Your task to perform on an android device: Go to Reddit.com Image 0: 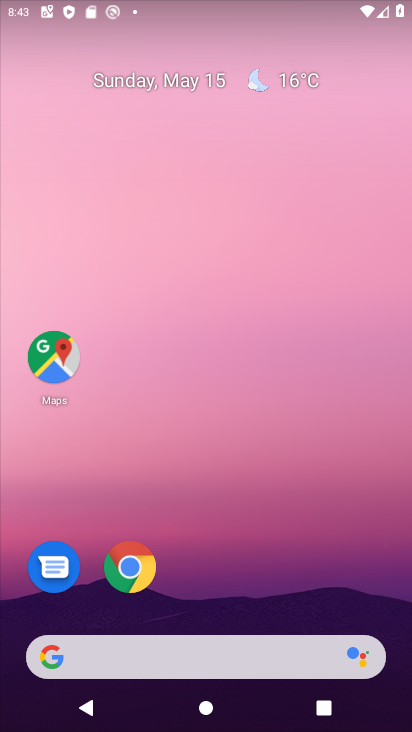
Step 0: click (125, 581)
Your task to perform on an android device: Go to Reddit.com Image 1: 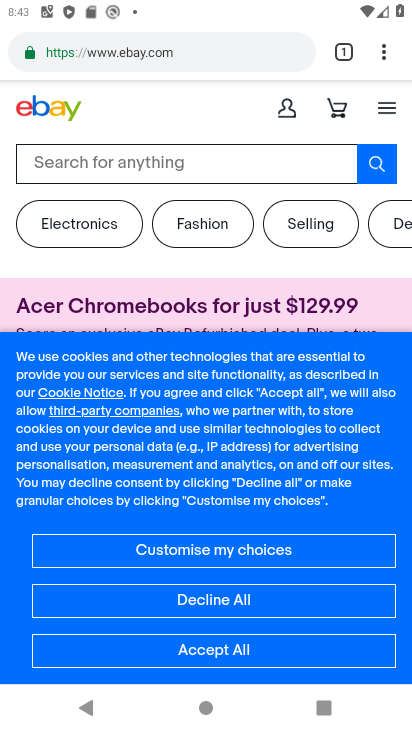
Step 1: click (125, 581)
Your task to perform on an android device: Go to Reddit.com Image 2: 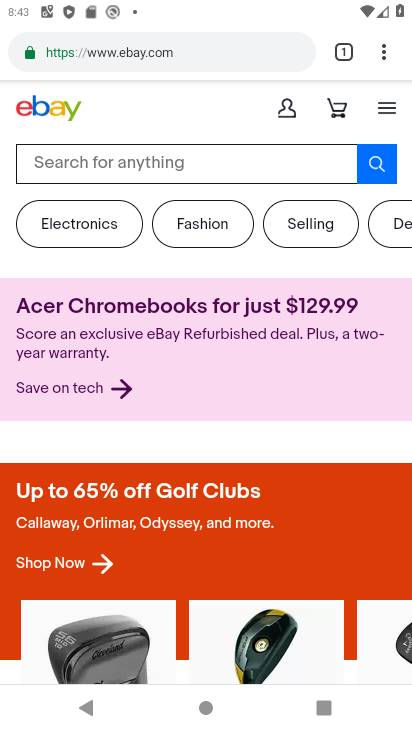
Step 2: click (177, 67)
Your task to perform on an android device: Go to Reddit.com Image 3: 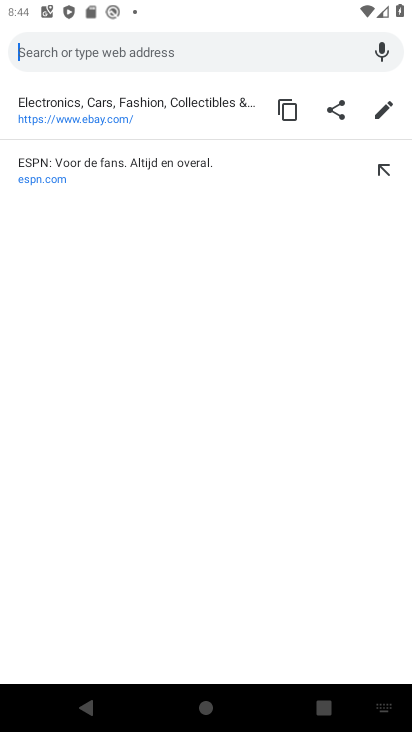
Step 3: type "reddit.com"
Your task to perform on an android device: Go to Reddit.com Image 4: 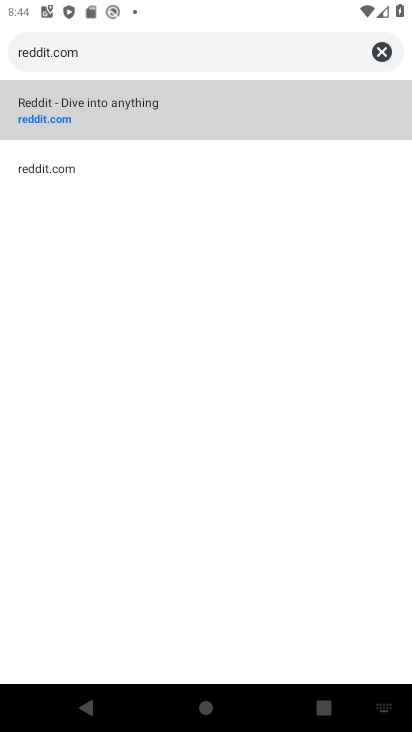
Step 4: click (143, 104)
Your task to perform on an android device: Go to Reddit.com Image 5: 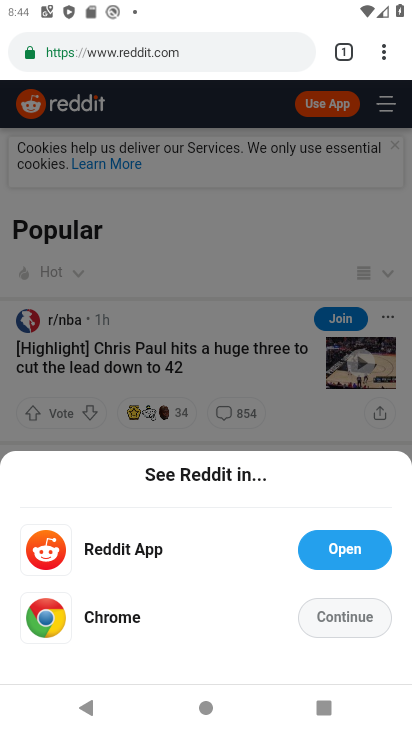
Step 5: task complete